Your task to perform on an android device: Search for pizza restaurants on Maps Image 0: 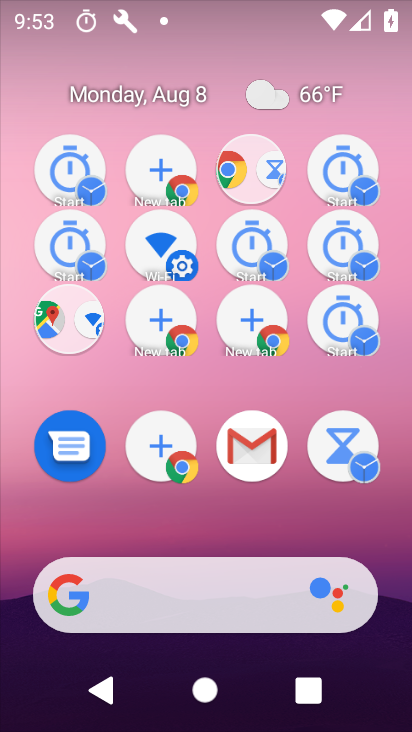
Step 0: drag from (259, 692) to (175, 252)
Your task to perform on an android device: Search for pizza restaurants on Maps Image 1: 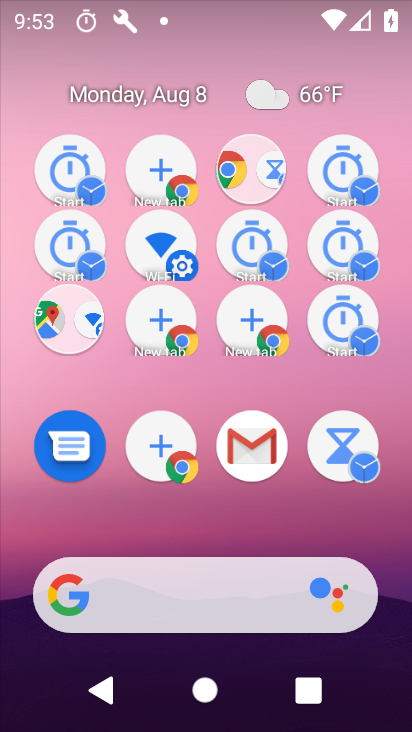
Step 1: drag from (273, 578) to (245, 258)
Your task to perform on an android device: Search for pizza restaurants on Maps Image 2: 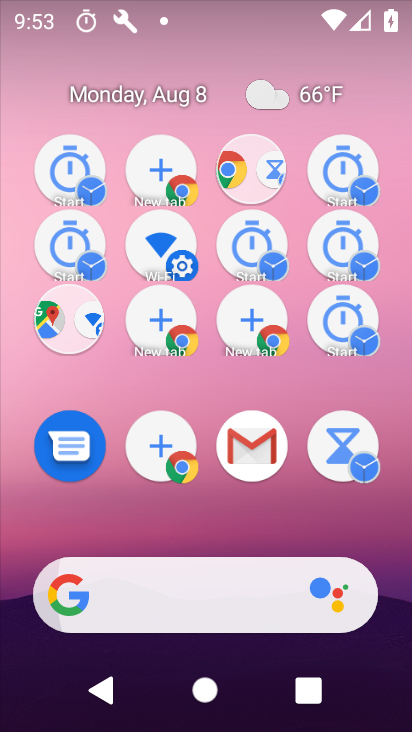
Step 2: drag from (260, 541) to (205, 270)
Your task to perform on an android device: Search for pizza restaurants on Maps Image 3: 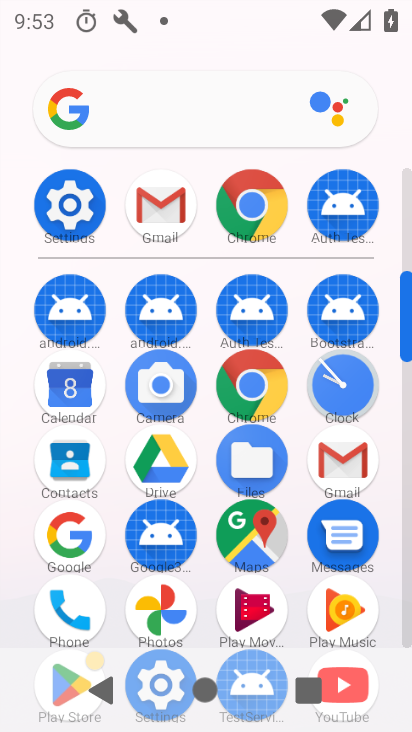
Step 3: drag from (223, 575) to (204, 363)
Your task to perform on an android device: Search for pizza restaurants on Maps Image 4: 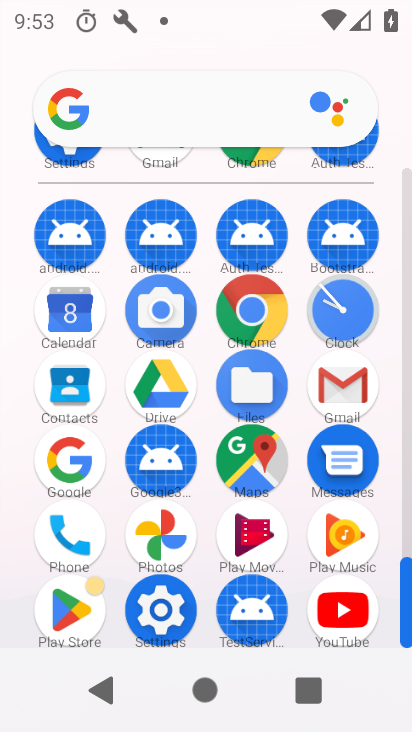
Step 4: click (251, 473)
Your task to perform on an android device: Search for pizza restaurants on Maps Image 5: 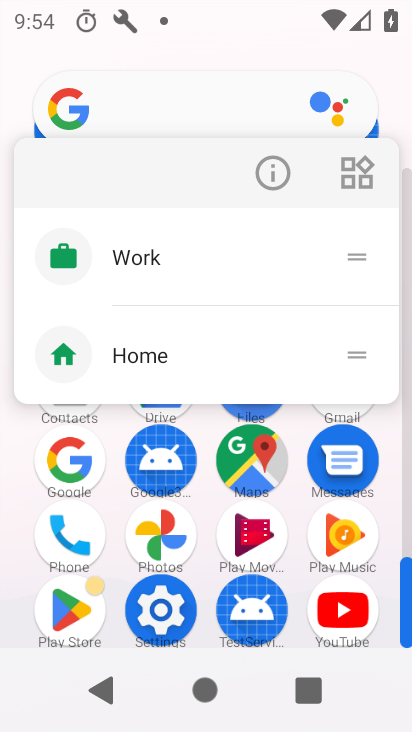
Step 5: click (252, 461)
Your task to perform on an android device: Search for pizza restaurants on Maps Image 6: 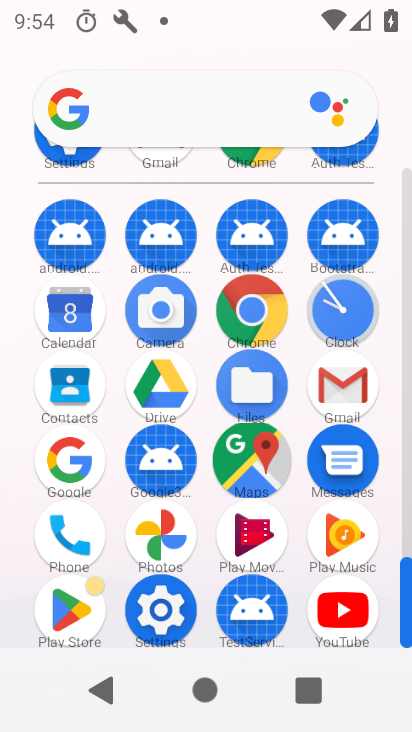
Step 6: click (175, 273)
Your task to perform on an android device: Search for pizza restaurants on Maps Image 7: 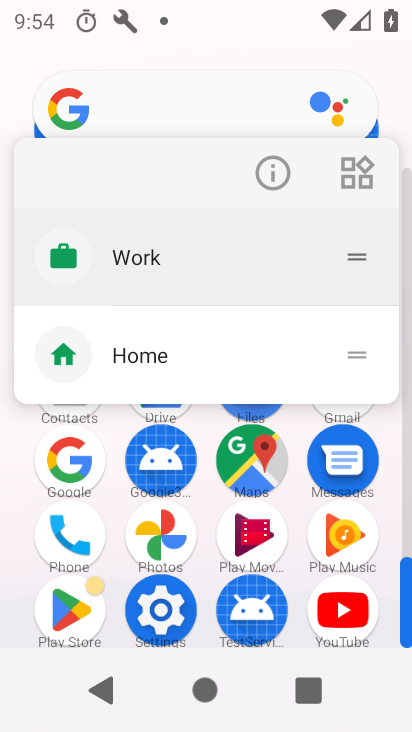
Step 7: click (172, 269)
Your task to perform on an android device: Search for pizza restaurants on Maps Image 8: 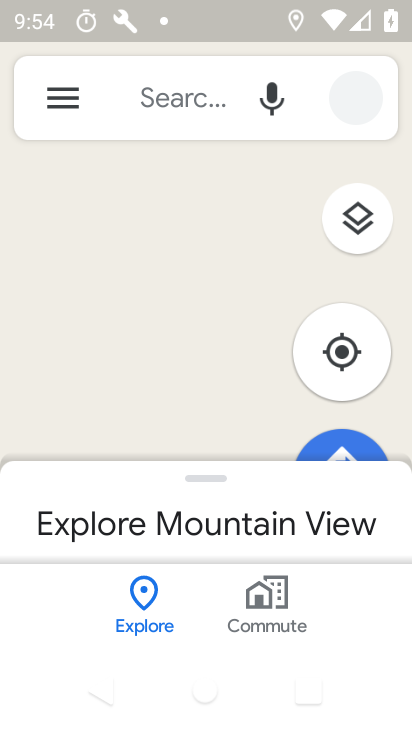
Step 8: click (133, 93)
Your task to perform on an android device: Search for pizza restaurants on Maps Image 9: 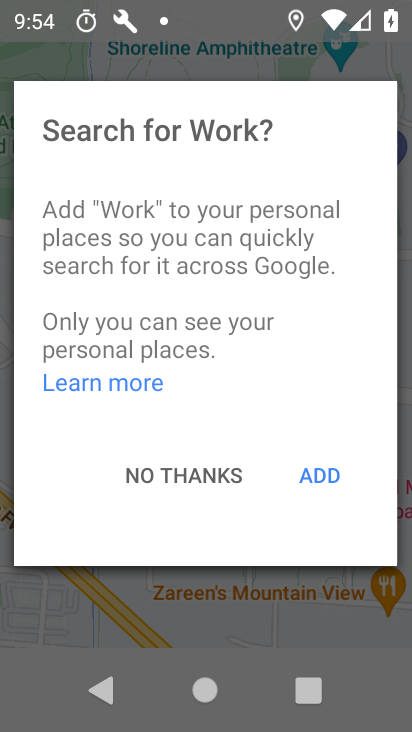
Step 9: click (188, 475)
Your task to perform on an android device: Search for pizza restaurants on Maps Image 10: 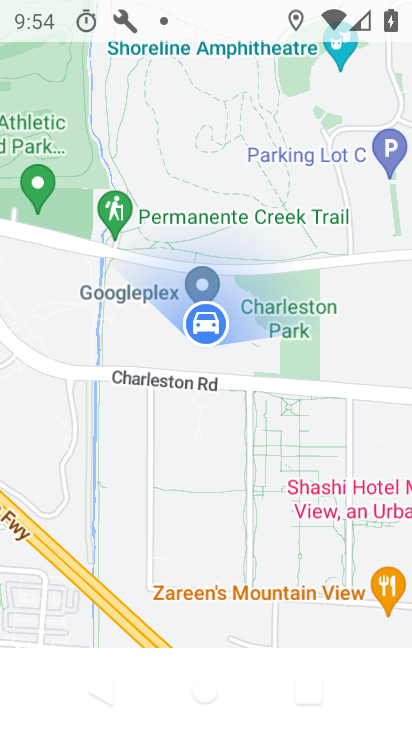
Step 10: click (152, 123)
Your task to perform on an android device: Search for pizza restaurants on Maps Image 11: 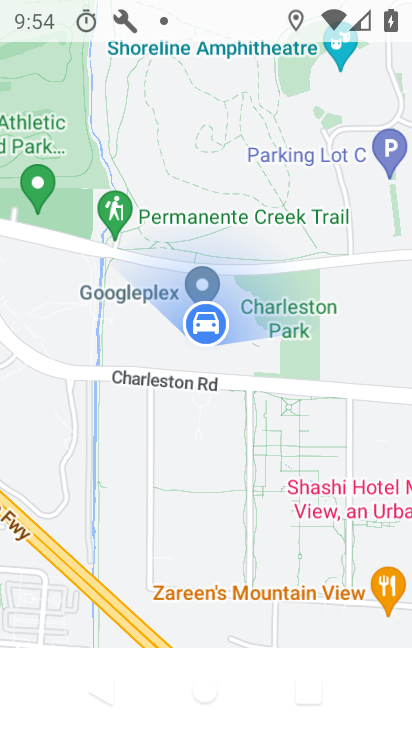
Step 11: click (160, 149)
Your task to perform on an android device: Search for pizza restaurants on Maps Image 12: 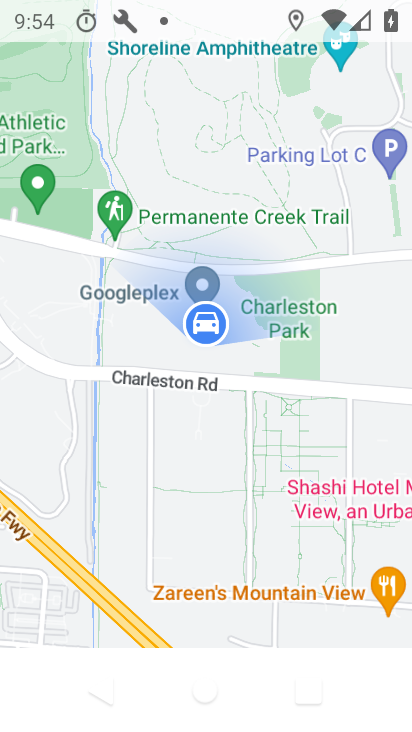
Step 12: click (166, 151)
Your task to perform on an android device: Search for pizza restaurants on Maps Image 13: 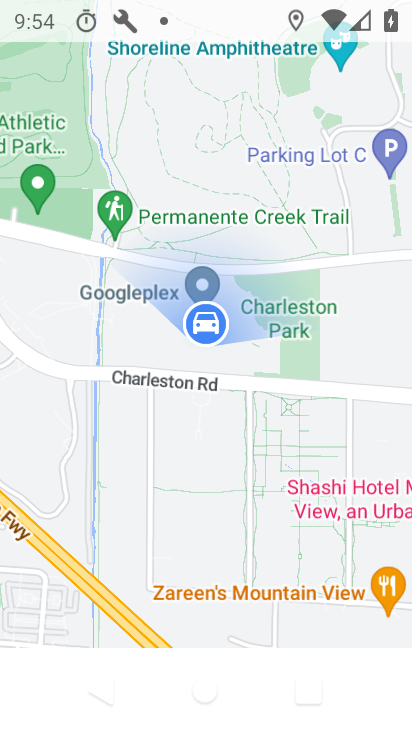
Step 13: click (170, 155)
Your task to perform on an android device: Search for pizza restaurants on Maps Image 14: 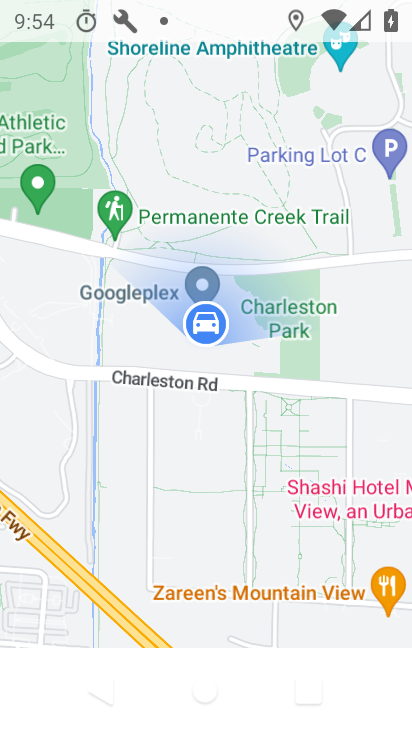
Step 14: drag from (230, 146) to (247, 500)
Your task to perform on an android device: Search for pizza restaurants on Maps Image 15: 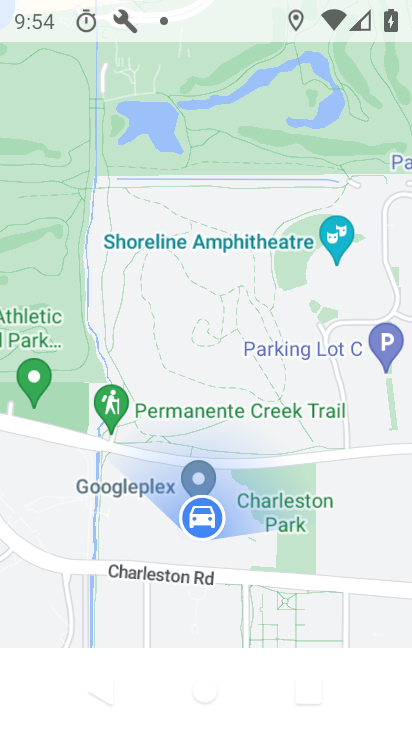
Step 15: drag from (197, 180) to (202, 542)
Your task to perform on an android device: Search for pizza restaurants on Maps Image 16: 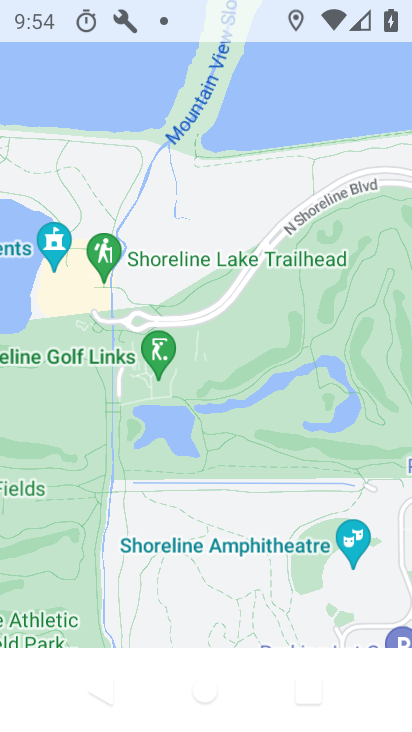
Step 16: drag from (179, 286) to (163, 575)
Your task to perform on an android device: Search for pizza restaurants on Maps Image 17: 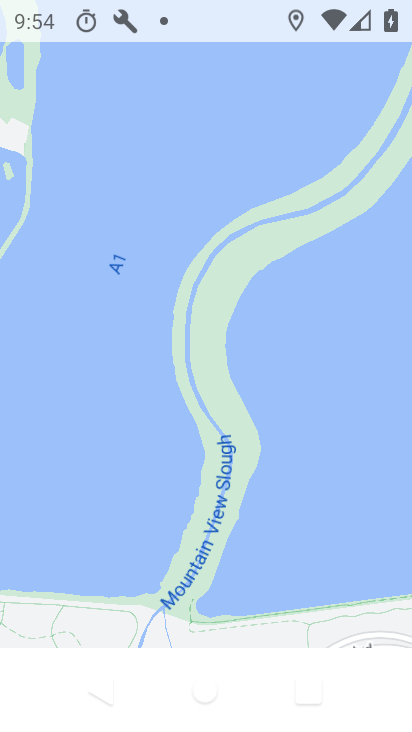
Step 17: click (182, 212)
Your task to perform on an android device: Search for pizza restaurants on Maps Image 18: 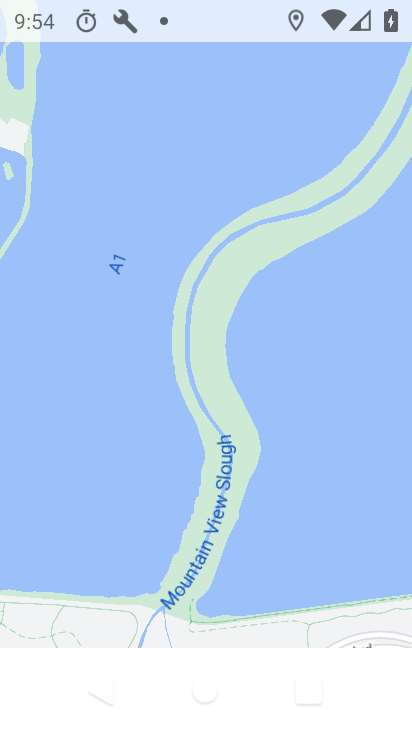
Step 18: click (185, 216)
Your task to perform on an android device: Search for pizza restaurants on Maps Image 19: 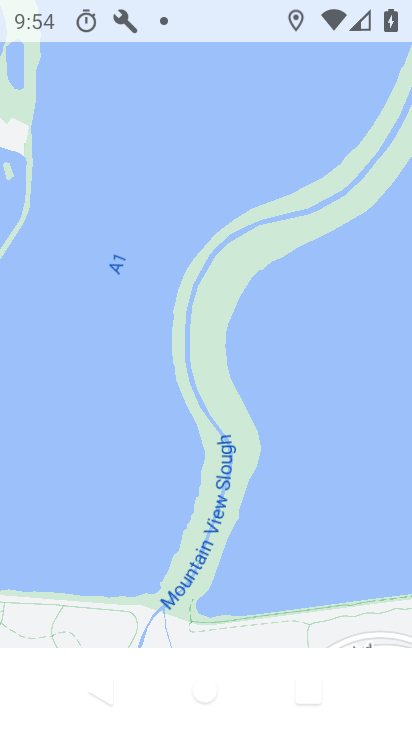
Step 19: click (187, 218)
Your task to perform on an android device: Search for pizza restaurants on Maps Image 20: 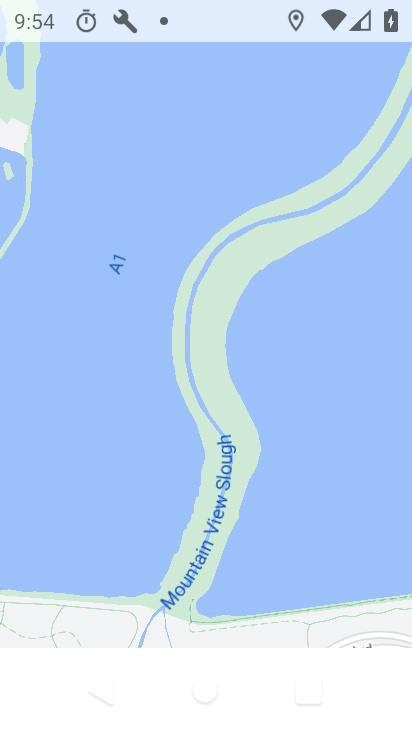
Step 20: click (187, 218)
Your task to perform on an android device: Search for pizza restaurants on Maps Image 21: 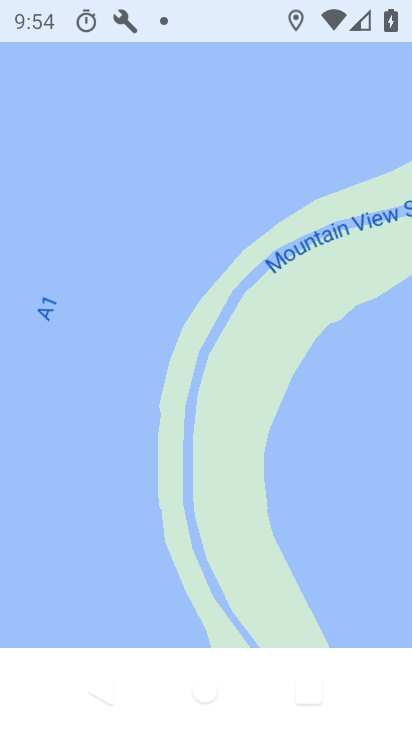
Step 21: click (186, 234)
Your task to perform on an android device: Search for pizza restaurants on Maps Image 22: 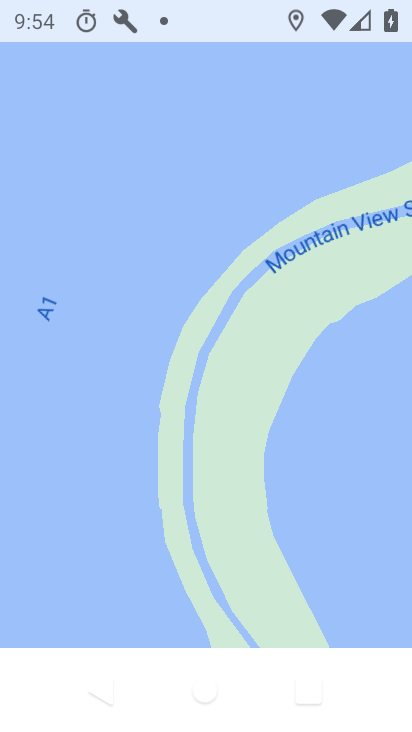
Step 22: click (188, 235)
Your task to perform on an android device: Search for pizza restaurants on Maps Image 23: 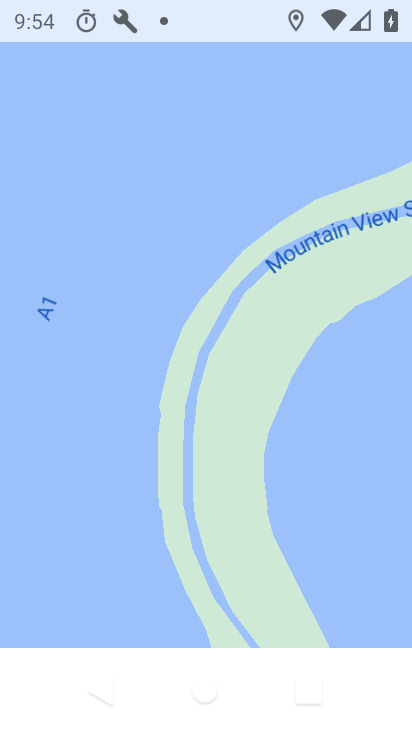
Step 23: drag from (254, 514) to (235, 104)
Your task to perform on an android device: Search for pizza restaurants on Maps Image 24: 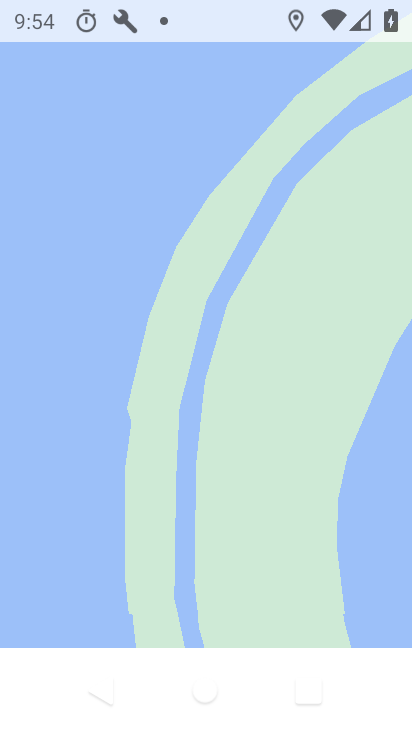
Step 24: drag from (213, 455) to (210, 115)
Your task to perform on an android device: Search for pizza restaurants on Maps Image 25: 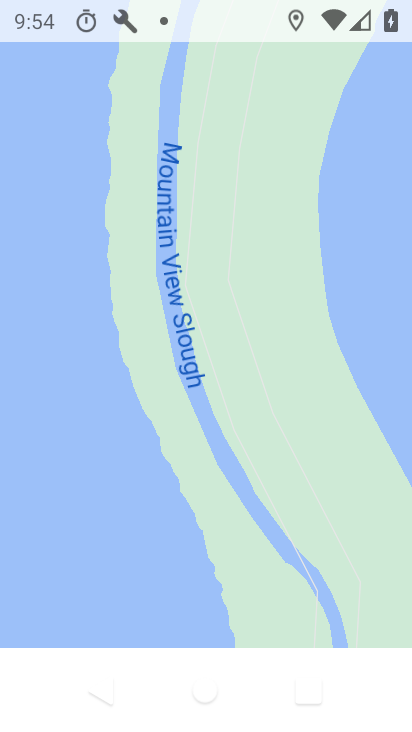
Step 25: drag from (235, 476) to (234, 279)
Your task to perform on an android device: Search for pizza restaurants on Maps Image 26: 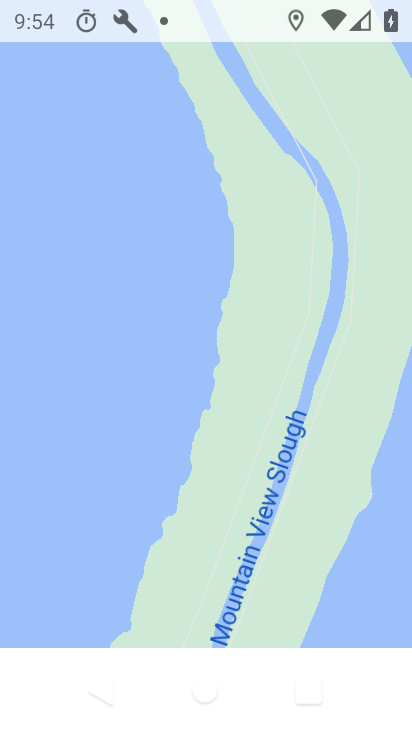
Step 26: click (196, 163)
Your task to perform on an android device: Search for pizza restaurants on Maps Image 27: 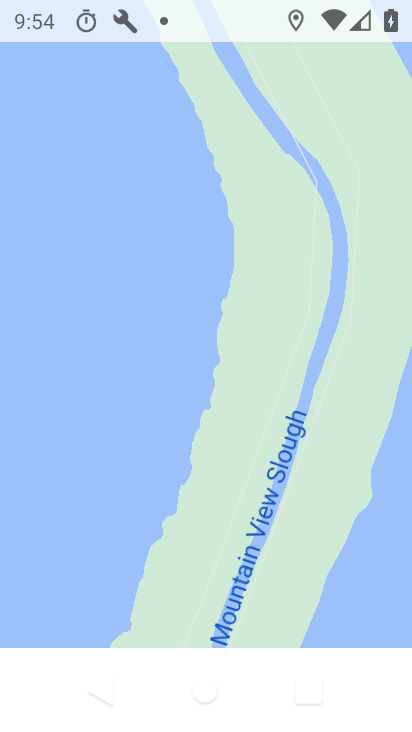
Step 27: drag from (196, 163) to (254, 175)
Your task to perform on an android device: Search for pizza restaurants on Maps Image 28: 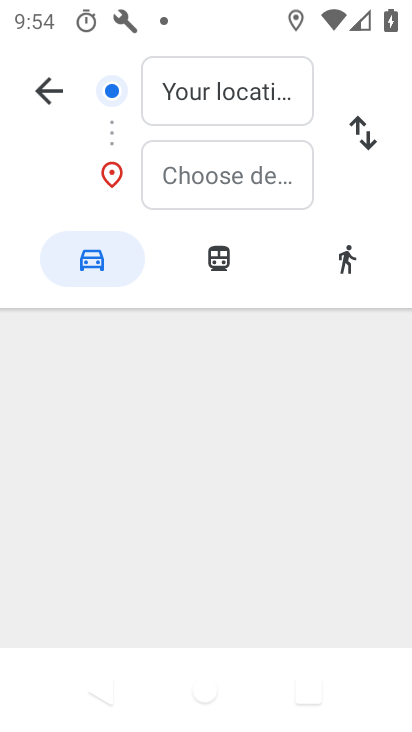
Step 28: drag from (261, 185) to (250, 218)
Your task to perform on an android device: Search for pizza restaurants on Maps Image 29: 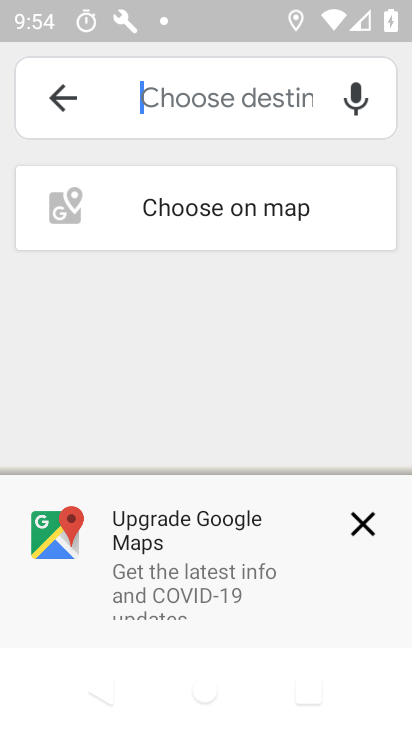
Step 29: click (57, 94)
Your task to perform on an android device: Search for pizza restaurants on Maps Image 30: 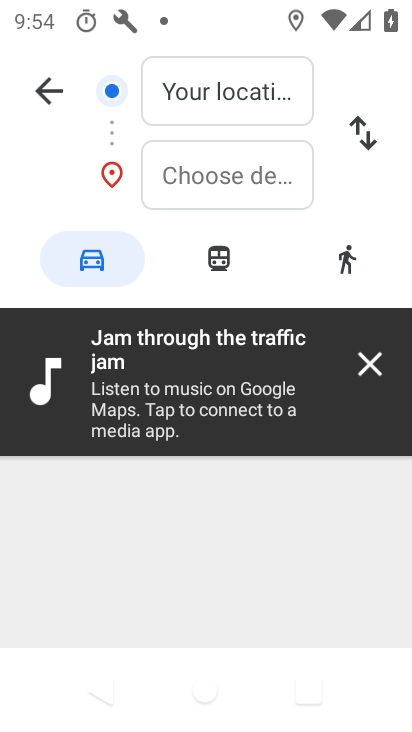
Step 30: click (201, 168)
Your task to perform on an android device: Search for pizza restaurants on Maps Image 31: 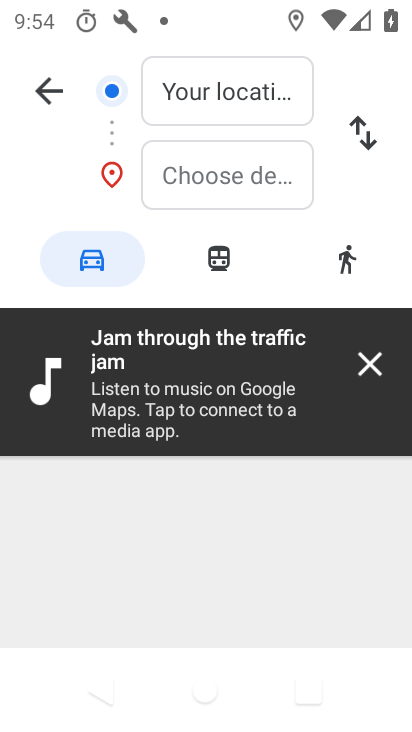
Step 31: click (200, 169)
Your task to perform on an android device: Search for pizza restaurants on Maps Image 32: 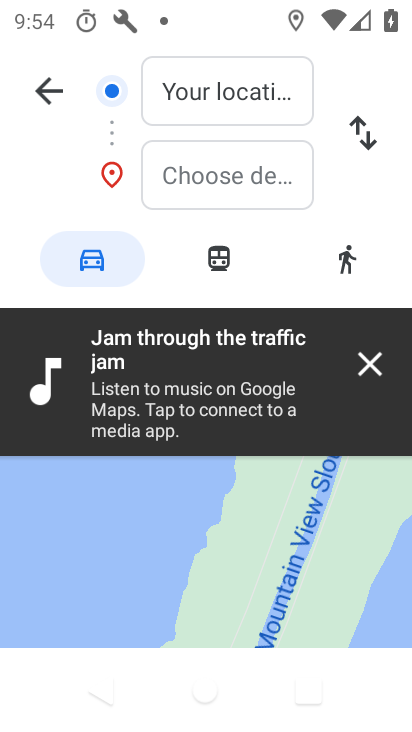
Step 32: click (201, 169)
Your task to perform on an android device: Search for pizza restaurants on Maps Image 33: 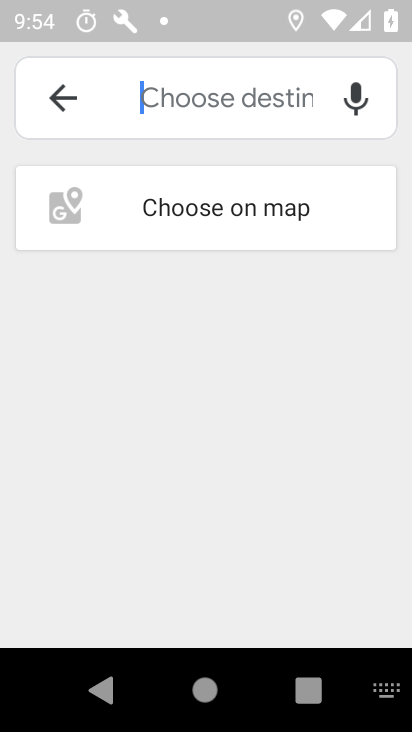
Step 33: type "pizza resturants"
Your task to perform on an android device: Search for pizza restaurants on Maps Image 34: 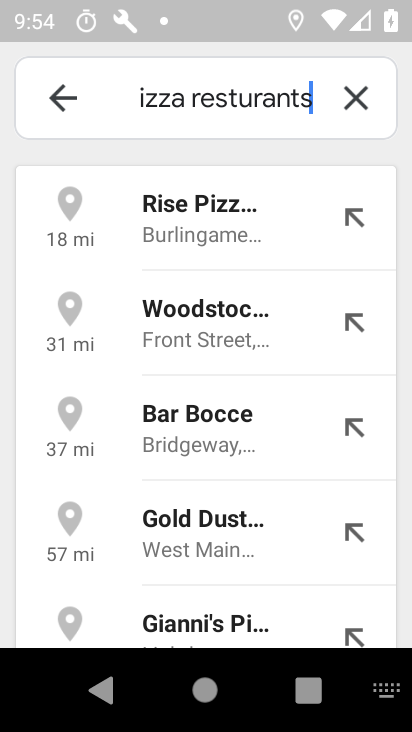
Step 34: click (247, 108)
Your task to perform on an android device: Search for pizza restaurants on Maps Image 35: 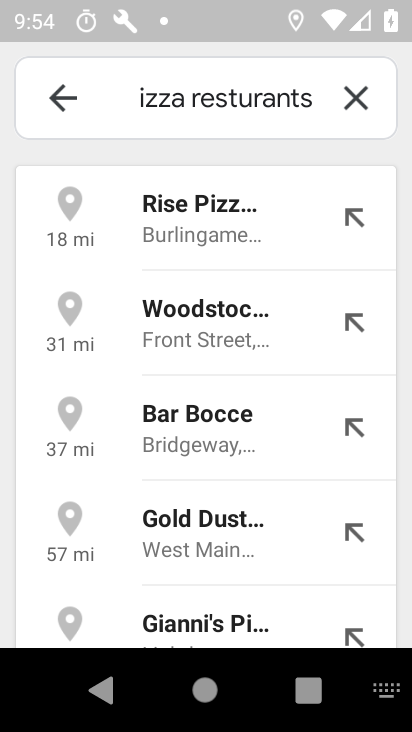
Step 35: click (247, 110)
Your task to perform on an android device: Search for pizza restaurants on Maps Image 36: 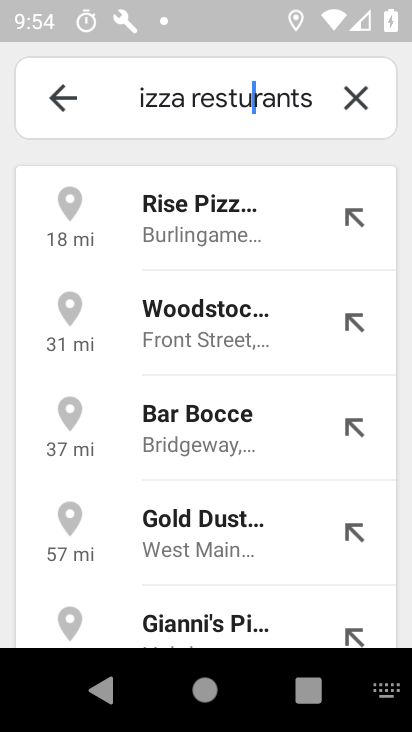
Step 36: click (248, 111)
Your task to perform on an android device: Search for pizza restaurants on Maps Image 37: 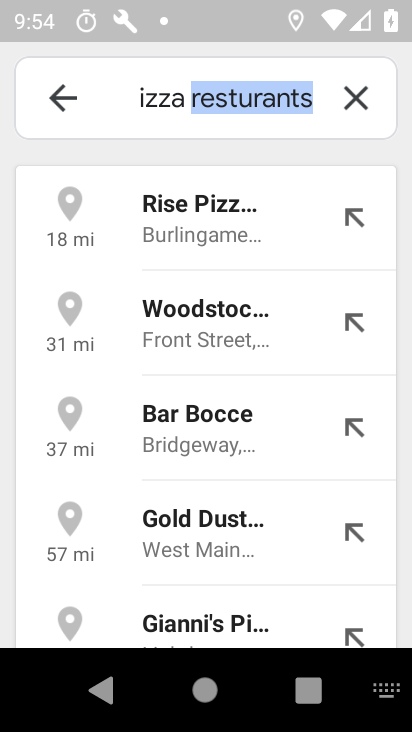
Step 37: click (248, 111)
Your task to perform on an android device: Search for pizza restaurants on Maps Image 38: 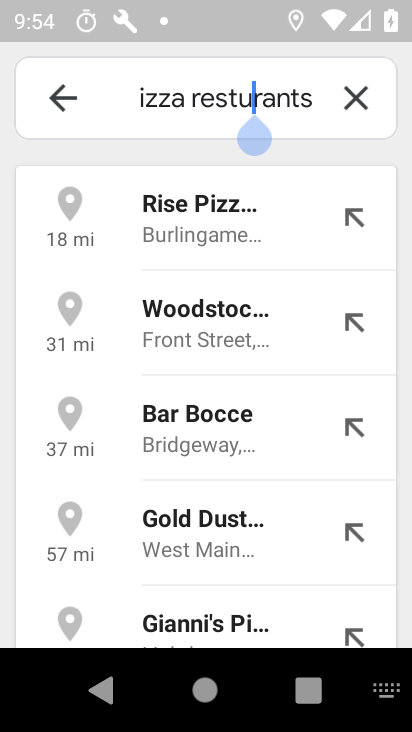
Step 38: click (248, 111)
Your task to perform on an android device: Search for pizza restaurants on Maps Image 39: 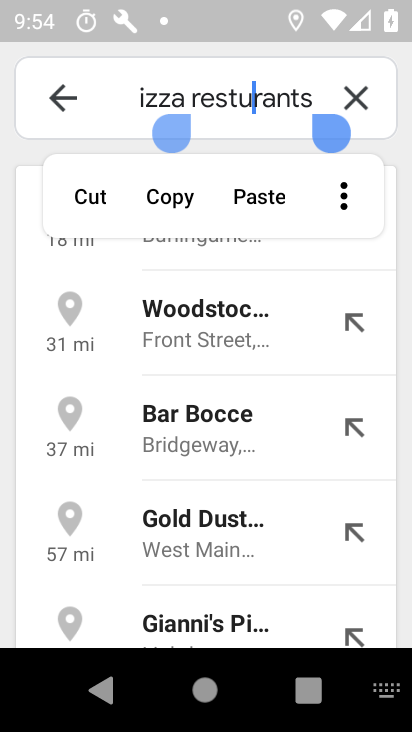
Step 39: click (194, 225)
Your task to perform on an android device: Search for pizza restaurants on Maps Image 40: 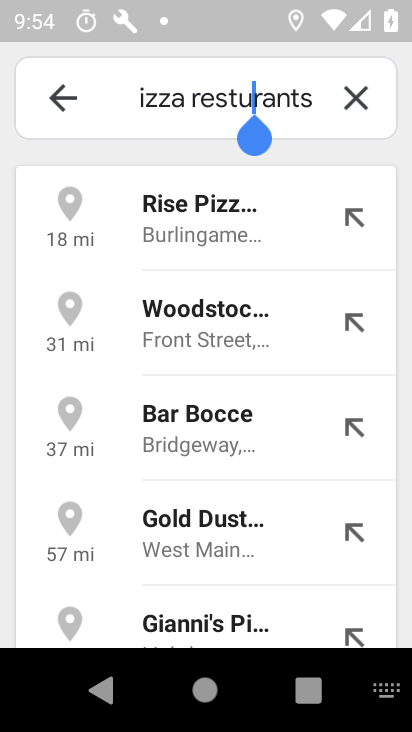
Step 40: click (194, 225)
Your task to perform on an android device: Search for pizza restaurants on Maps Image 41: 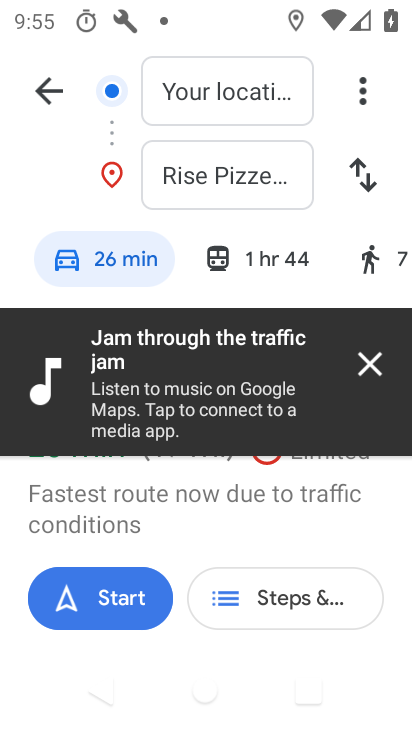
Step 41: task complete